Your task to perform on an android device: turn on bluetooth scan Image 0: 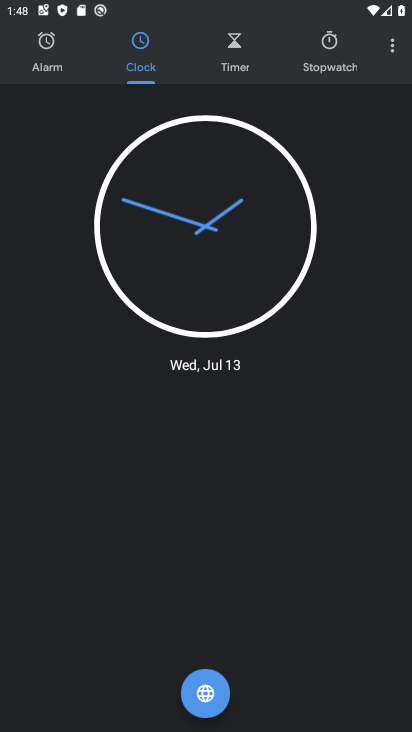
Step 0: press home button
Your task to perform on an android device: turn on bluetooth scan Image 1: 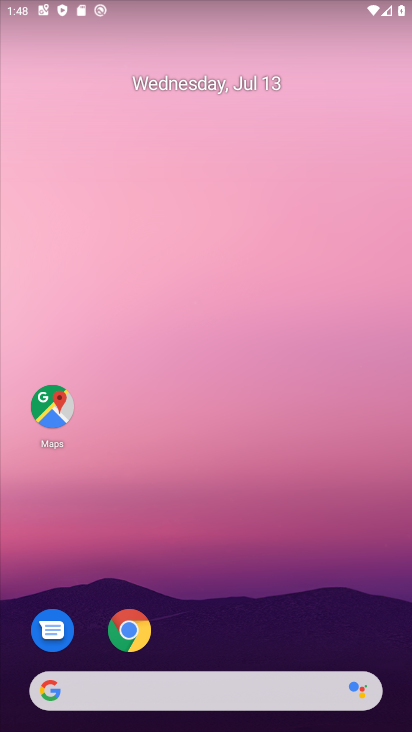
Step 1: drag from (356, 618) to (404, 171)
Your task to perform on an android device: turn on bluetooth scan Image 2: 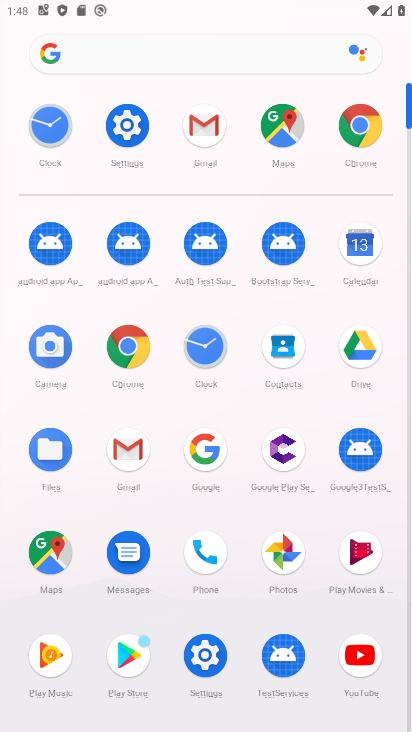
Step 2: click (205, 660)
Your task to perform on an android device: turn on bluetooth scan Image 3: 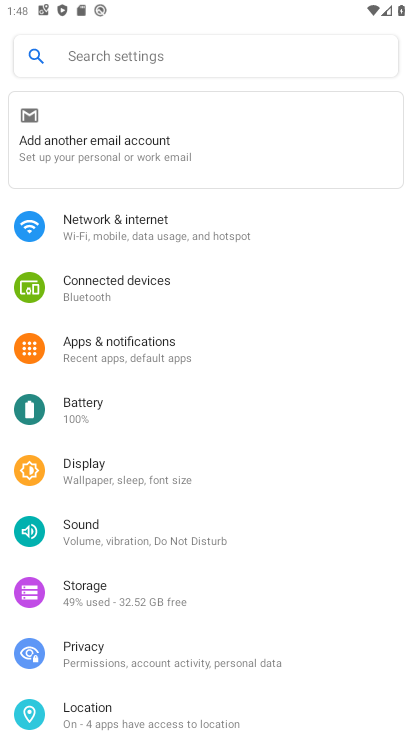
Step 3: drag from (326, 322) to (323, 471)
Your task to perform on an android device: turn on bluetooth scan Image 4: 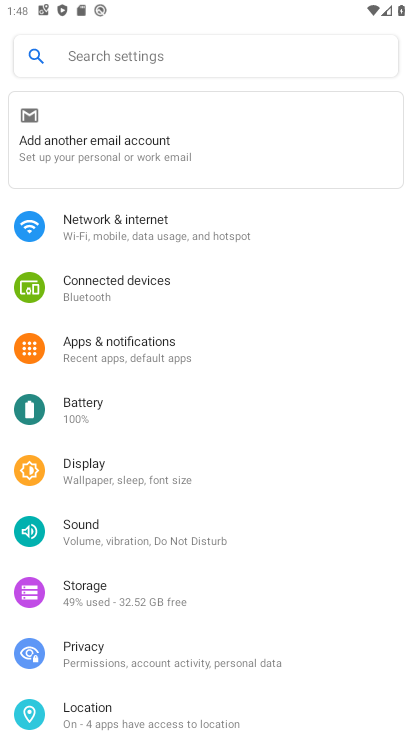
Step 4: drag from (336, 580) to (360, 436)
Your task to perform on an android device: turn on bluetooth scan Image 5: 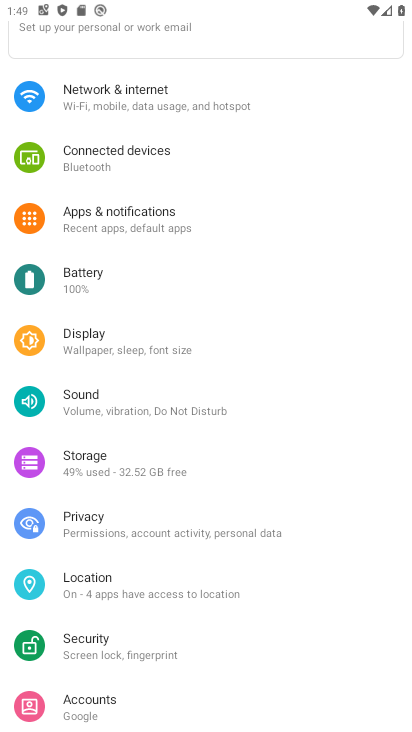
Step 5: drag from (344, 544) to (360, 430)
Your task to perform on an android device: turn on bluetooth scan Image 6: 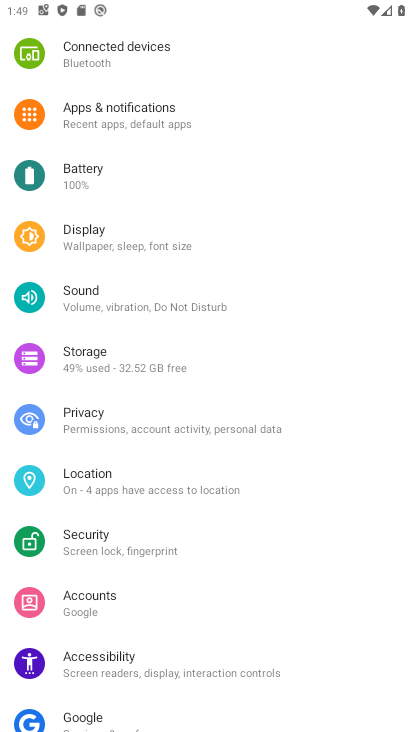
Step 6: drag from (361, 551) to (373, 383)
Your task to perform on an android device: turn on bluetooth scan Image 7: 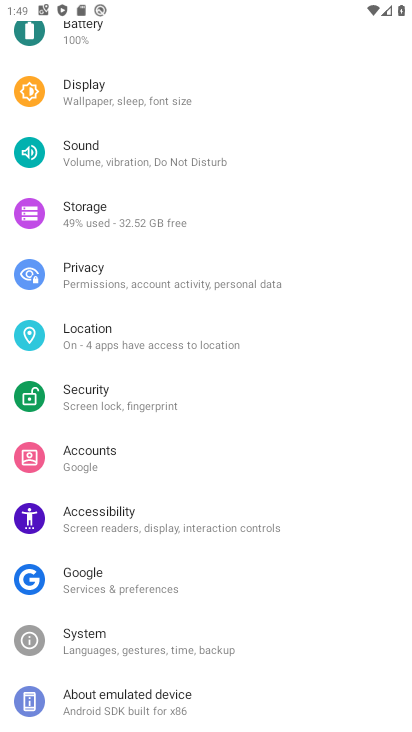
Step 7: drag from (359, 501) to (356, 377)
Your task to perform on an android device: turn on bluetooth scan Image 8: 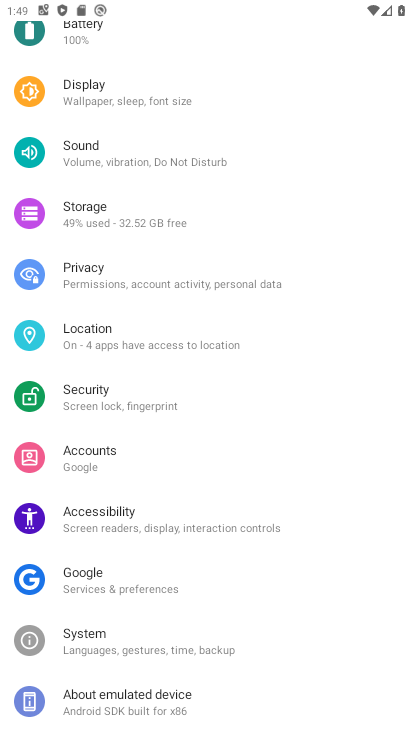
Step 8: click (172, 339)
Your task to perform on an android device: turn on bluetooth scan Image 9: 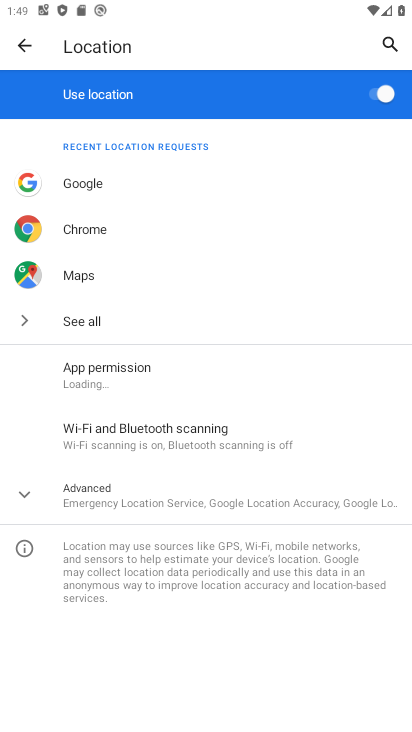
Step 9: click (197, 445)
Your task to perform on an android device: turn on bluetooth scan Image 10: 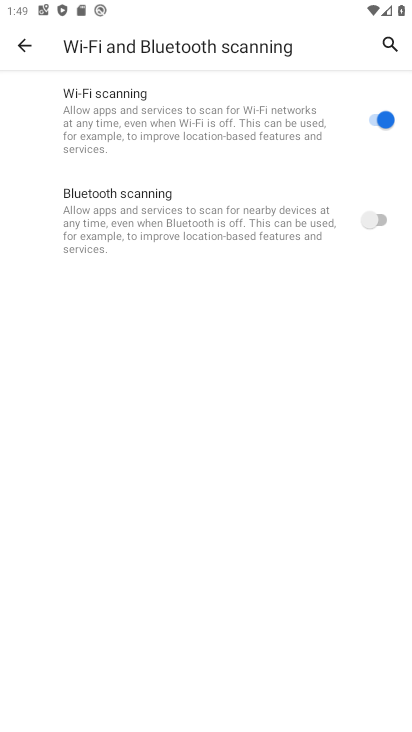
Step 10: click (377, 222)
Your task to perform on an android device: turn on bluetooth scan Image 11: 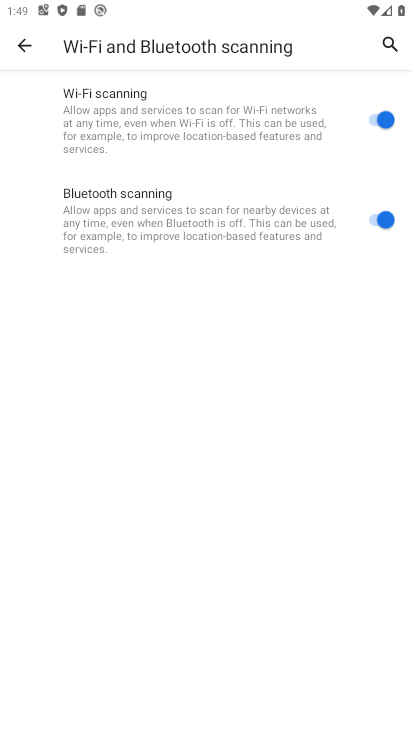
Step 11: task complete